Your task to perform on an android device: add a contact Image 0: 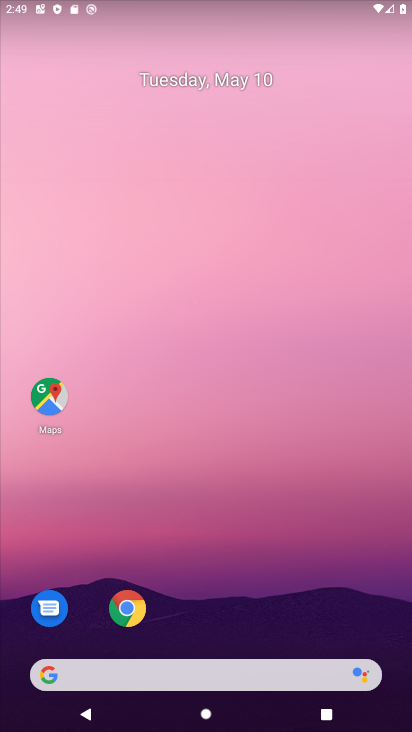
Step 0: drag from (200, 630) to (286, 63)
Your task to perform on an android device: add a contact Image 1: 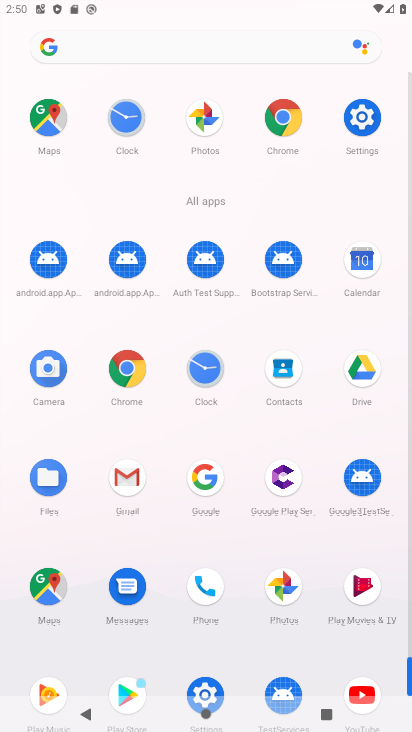
Step 1: click (295, 390)
Your task to perform on an android device: add a contact Image 2: 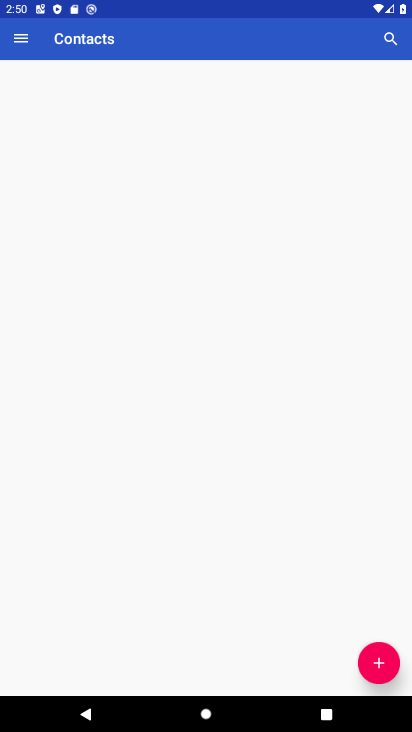
Step 2: click (388, 662)
Your task to perform on an android device: add a contact Image 3: 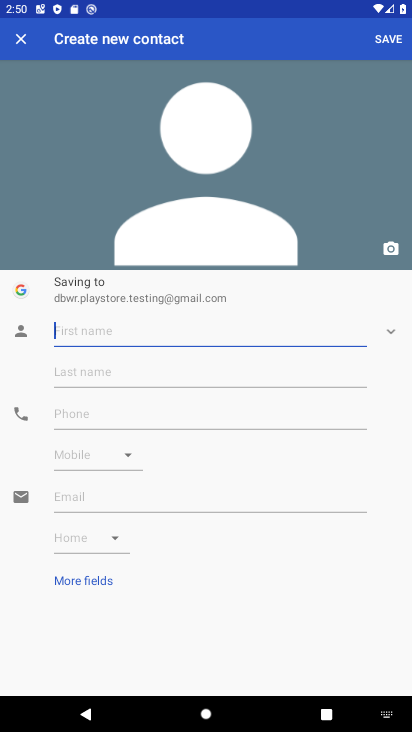
Step 3: type "pamela"
Your task to perform on an android device: add a contact Image 4: 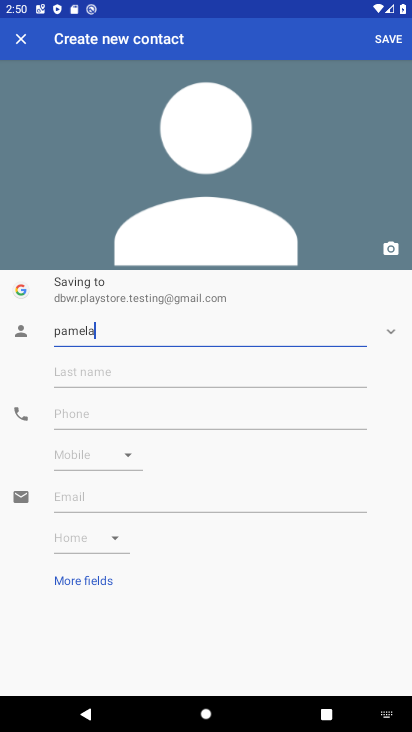
Step 4: click (381, 40)
Your task to perform on an android device: add a contact Image 5: 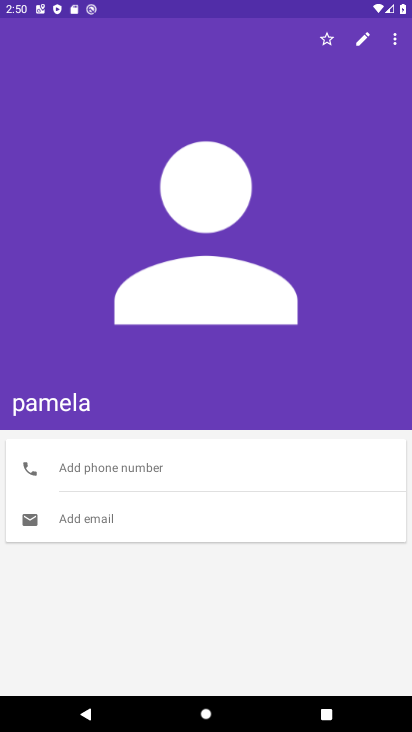
Step 5: task complete